Your task to perform on an android device: check android version Image 0: 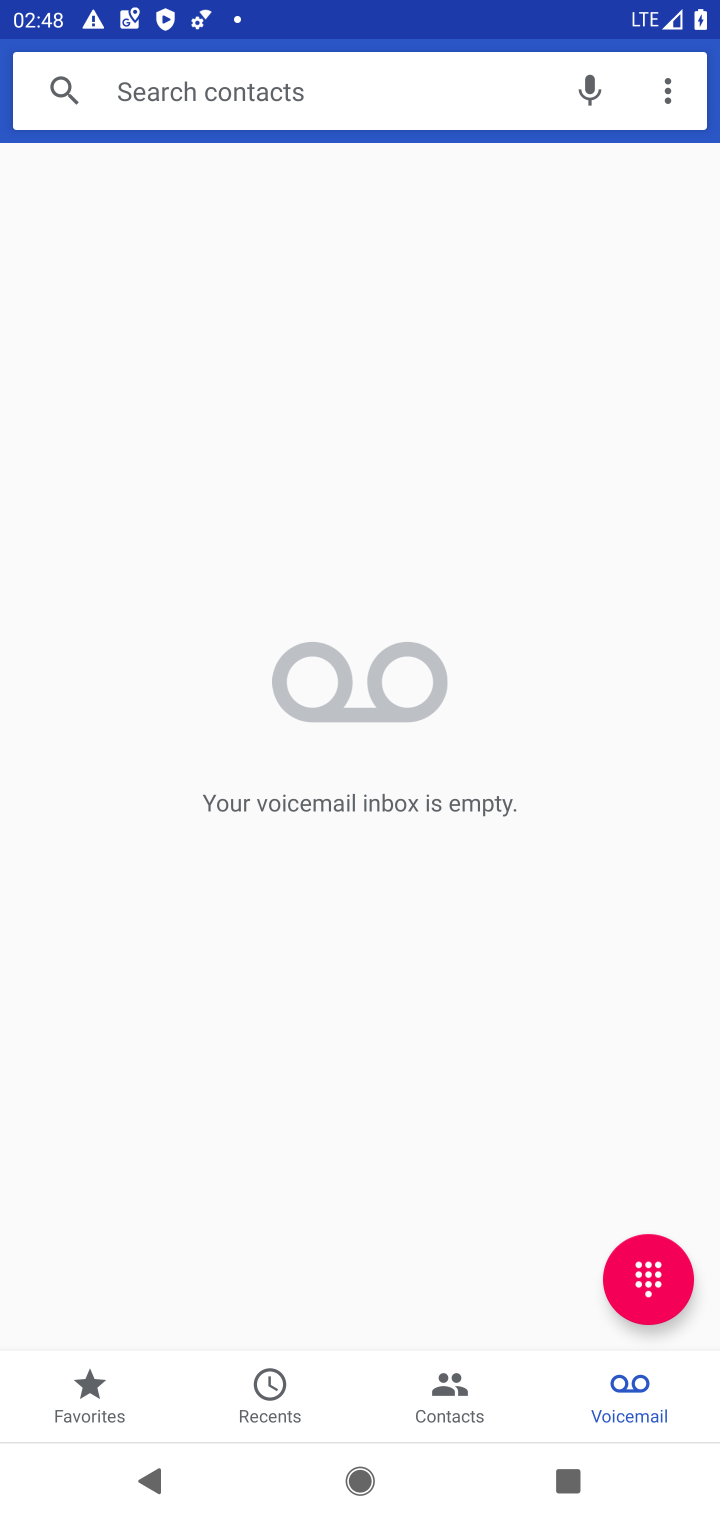
Step 0: press home button
Your task to perform on an android device: check android version Image 1: 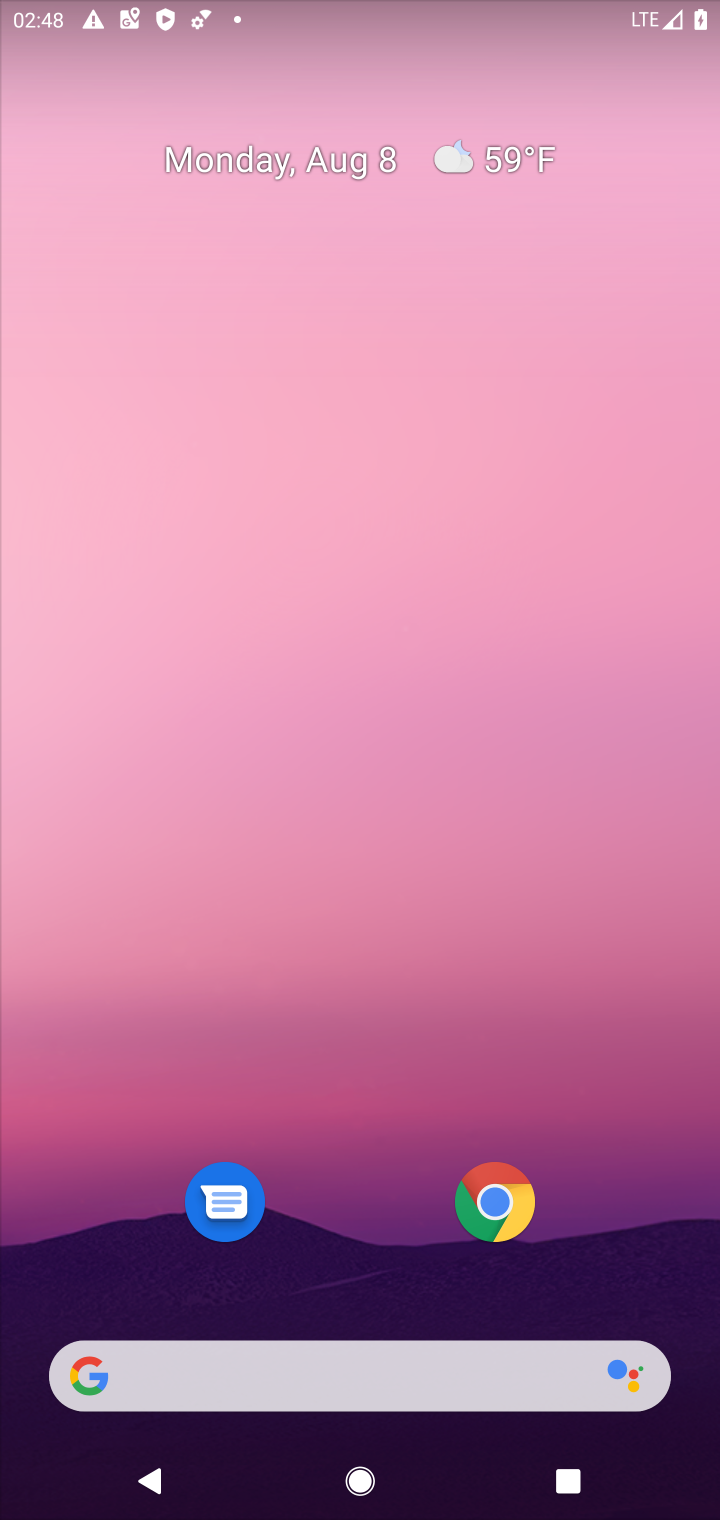
Step 1: click (486, 140)
Your task to perform on an android device: check android version Image 2: 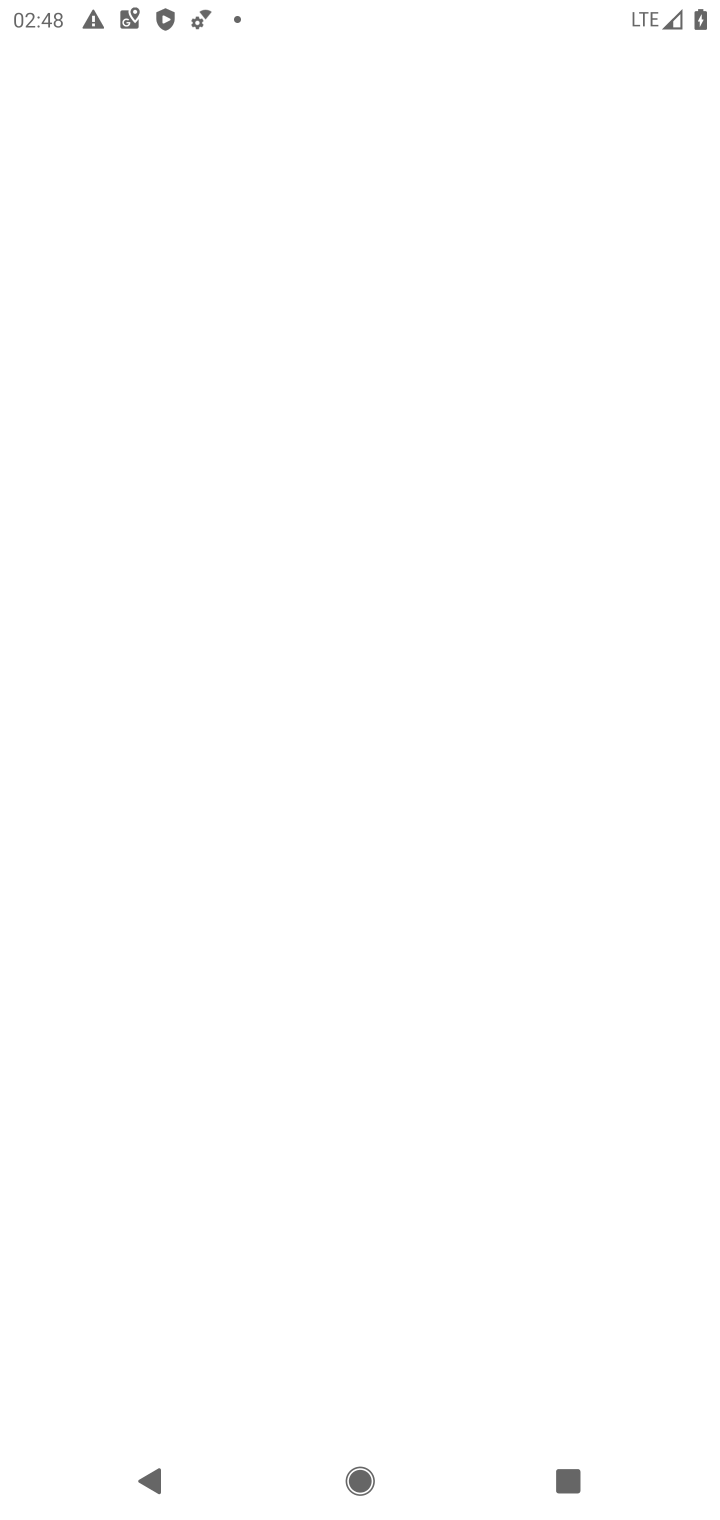
Step 2: drag from (318, 1202) to (440, 247)
Your task to perform on an android device: check android version Image 3: 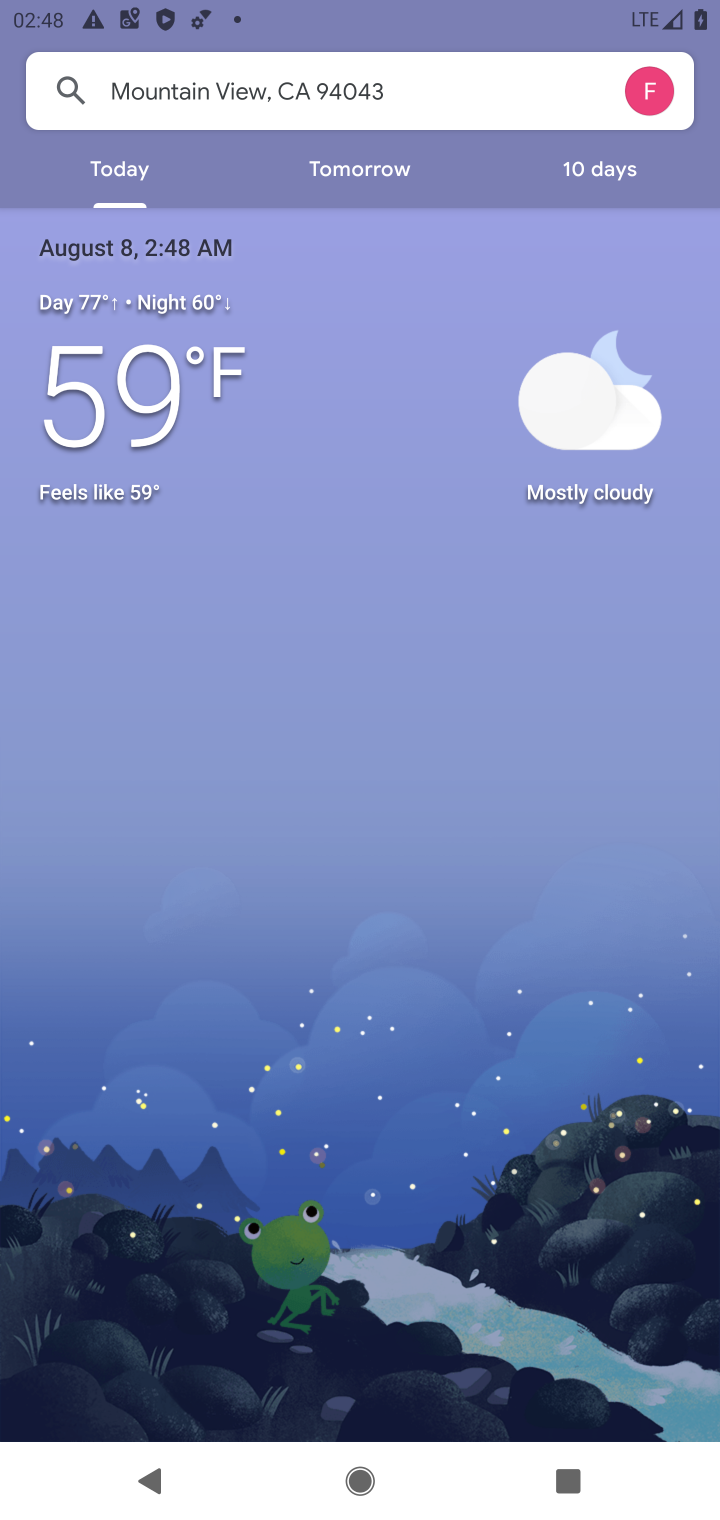
Step 3: click (653, 88)
Your task to perform on an android device: check android version Image 4: 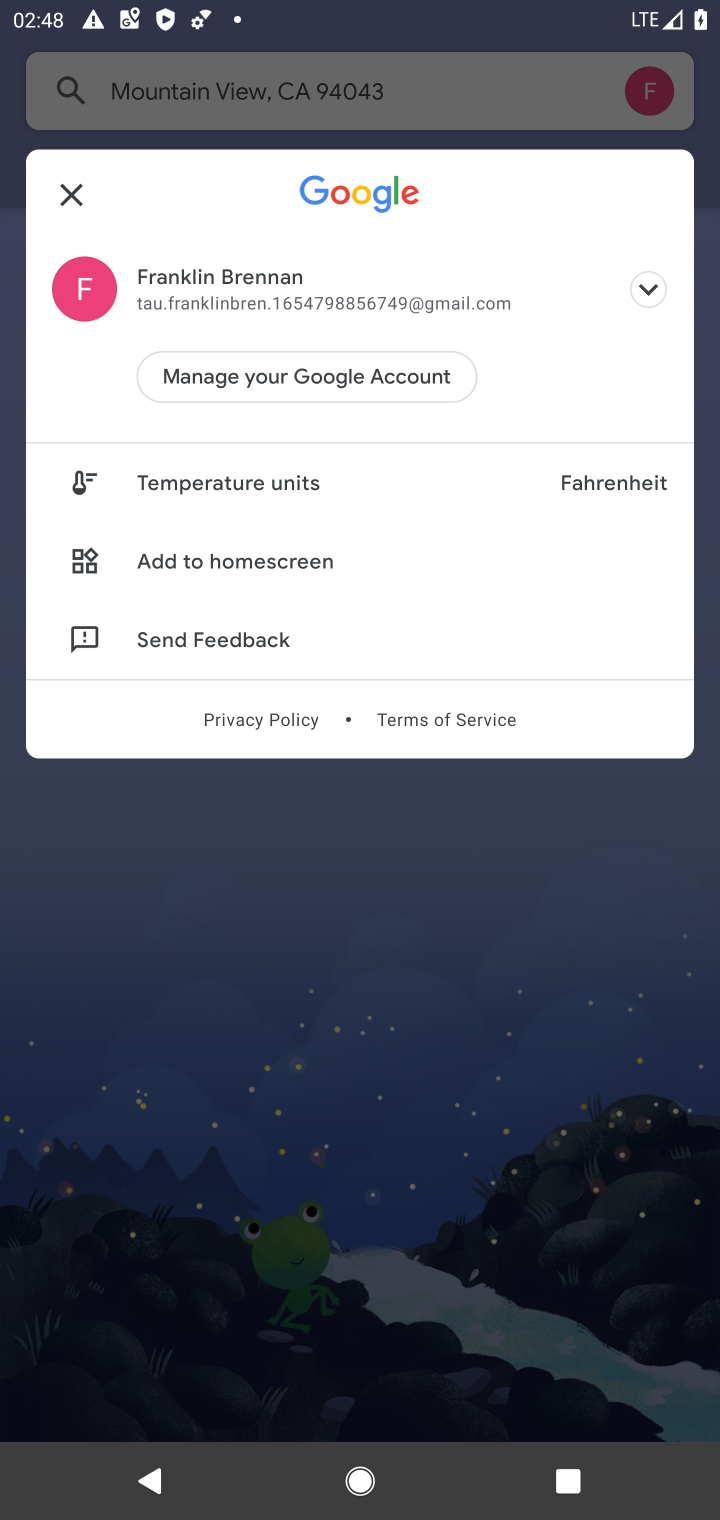
Step 4: press home button
Your task to perform on an android device: check android version Image 5: 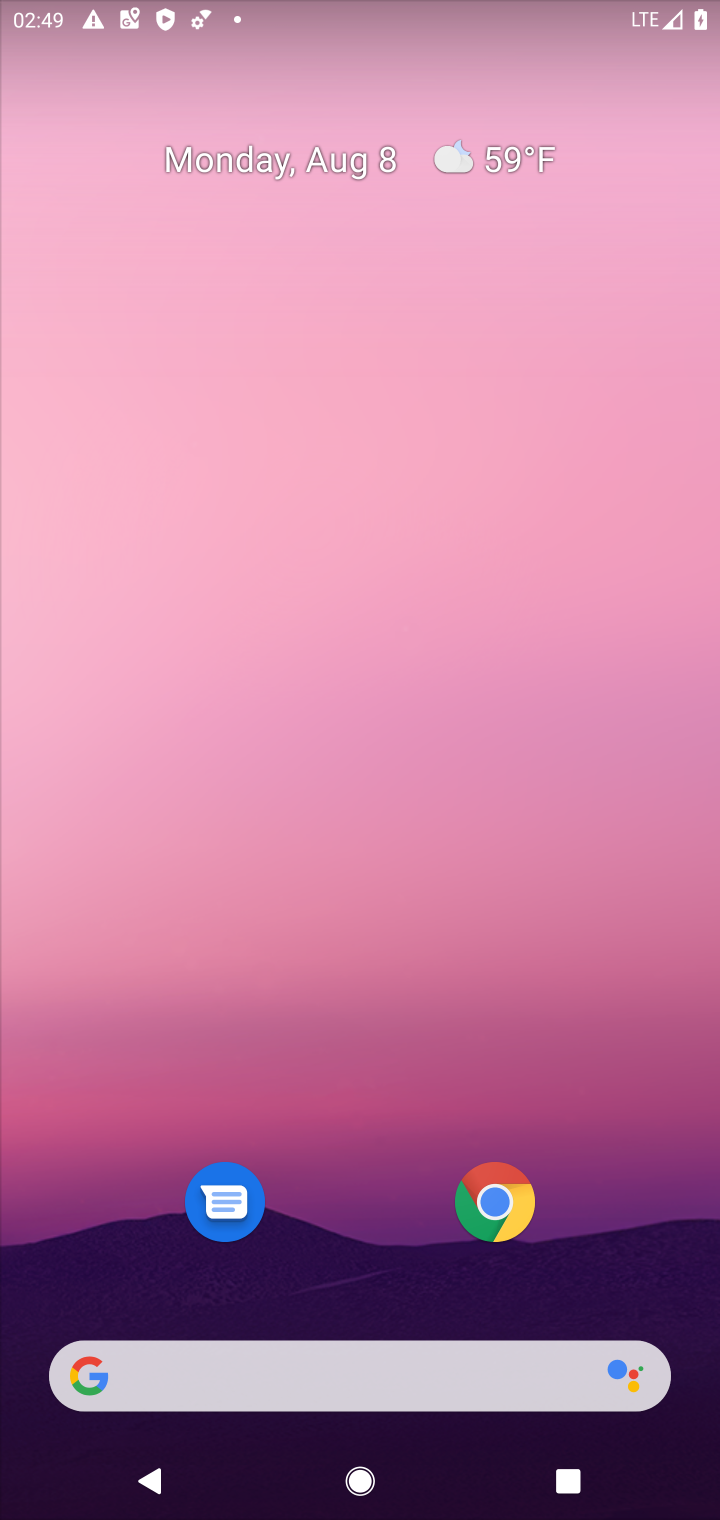
Step 5: drag from (446, 476) to (503, 353)
Your task to perform on an android device: check android version Image 6: 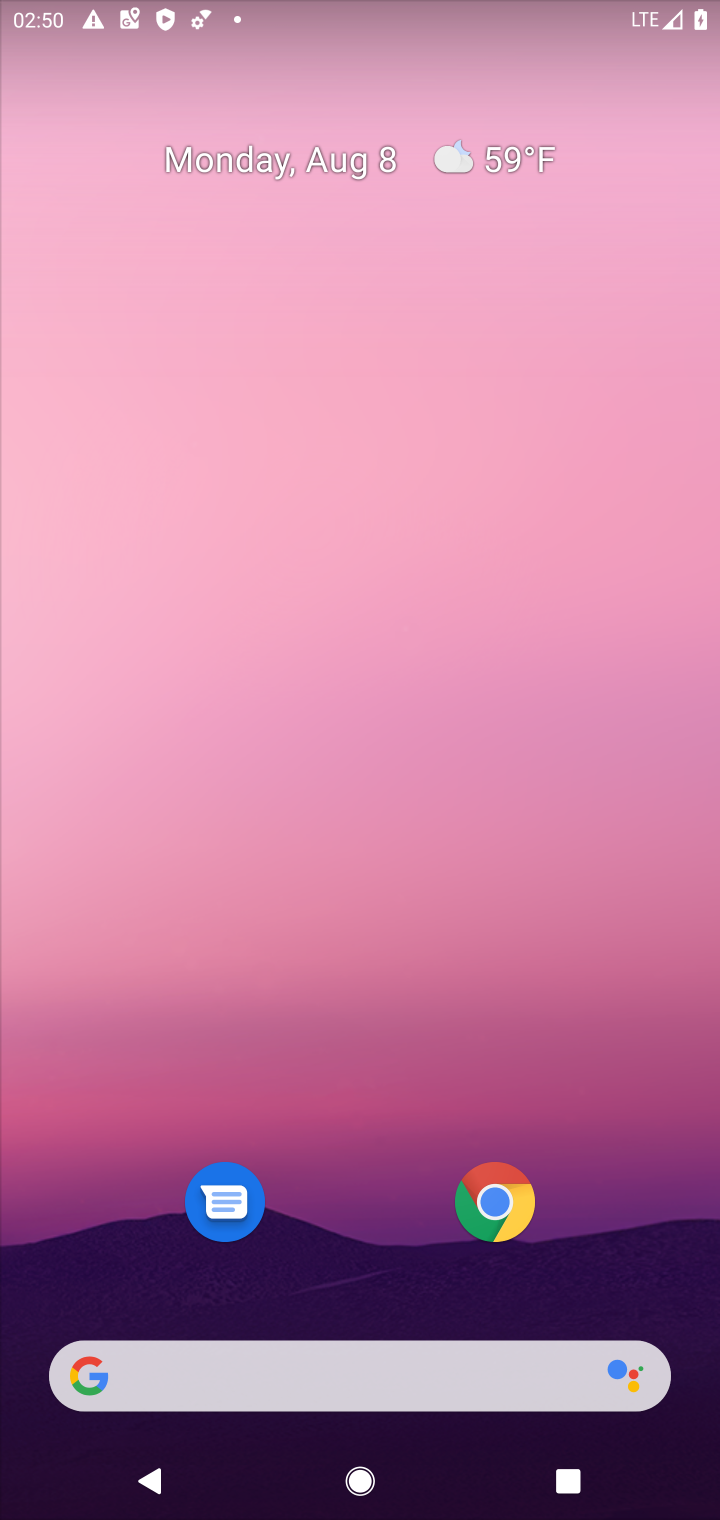
Step 6: drag from (336, 1215) to (413, 78)
Your task to perform on an android device: check android version Image 7: 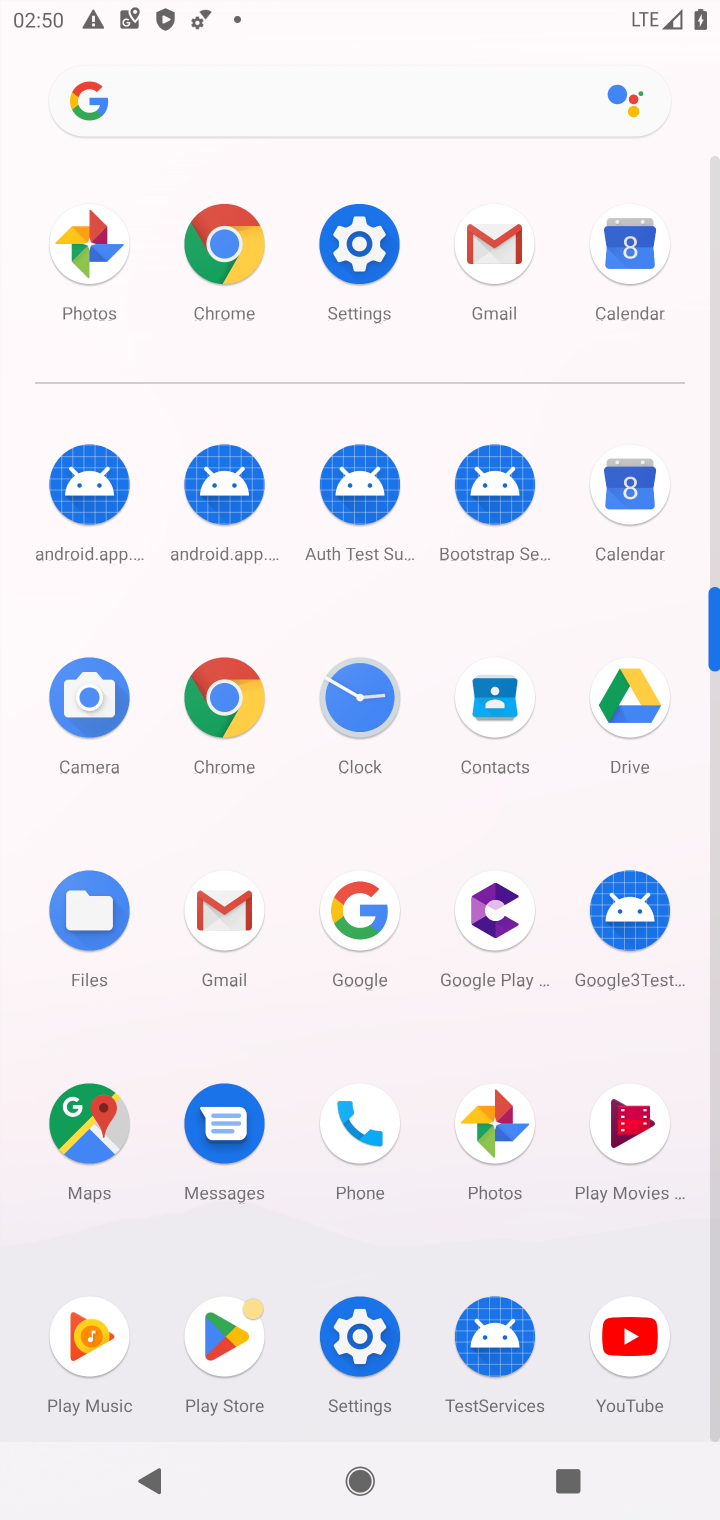
Step 7: click (353, 245)
Your task to perform on an android device: check android version Image 8: 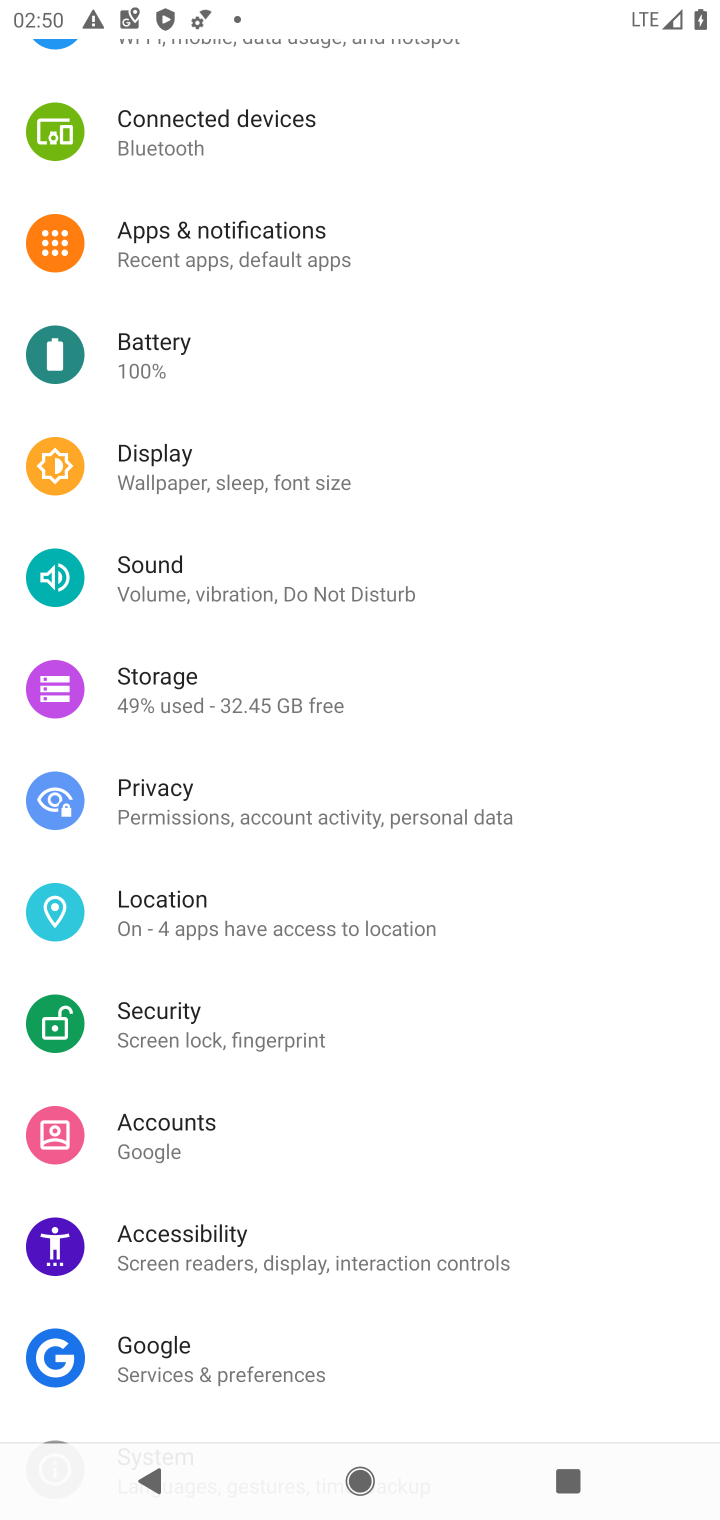
Step 8: drag from (236, 1340) to (330, 522)
Your task to perform on an android device: check android version Image 9: 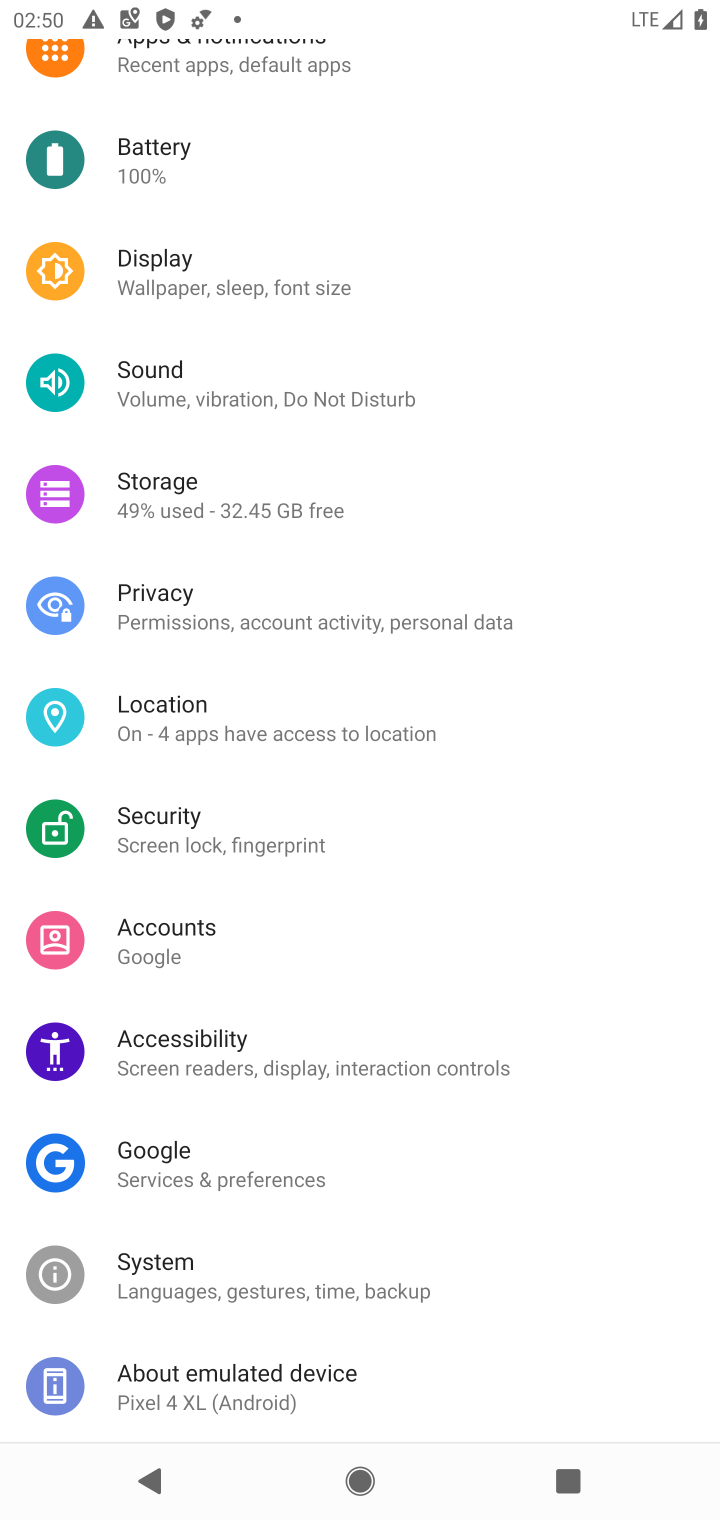
Step 9: click (166, 1368)
Your task to perform on an android device: check android version Image 10: 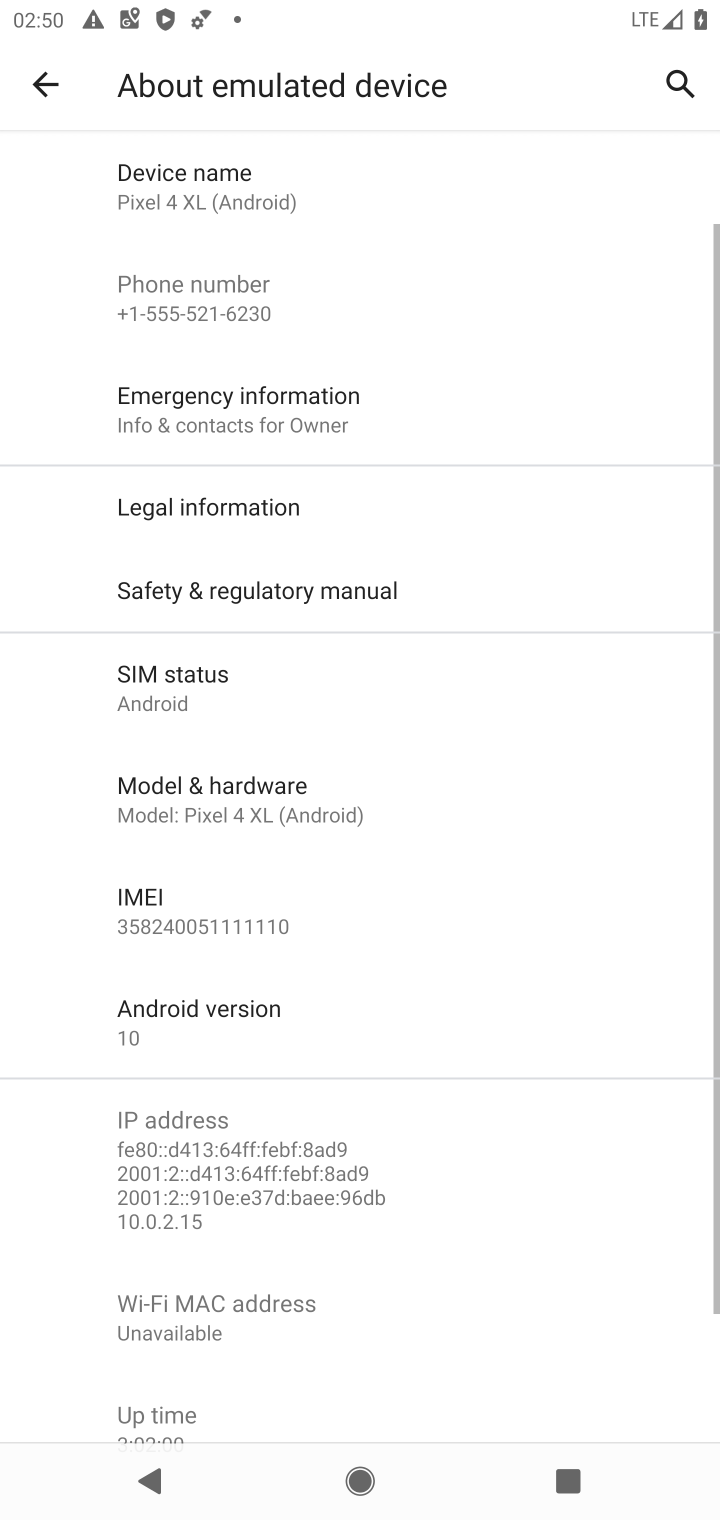
Step 10: task complete